Your task to perform on an android device: find which apps use the phone's location Image 0: 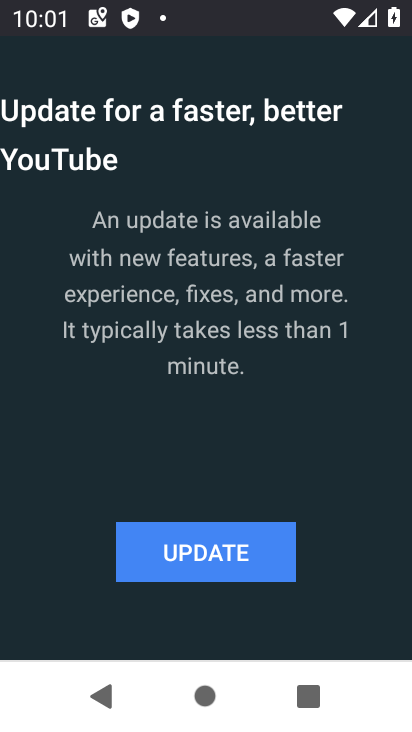
Step 0: press home button
Your task to perform on an android device: find which apps use the phone's location Image 1: 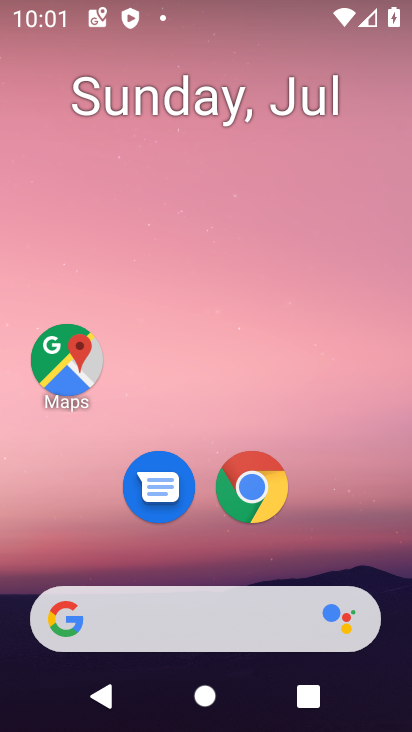
Step 1: drag from (180, 599) to (307, 19)
Your task to perform on an android device: find which apps use the phone's location Image 2: 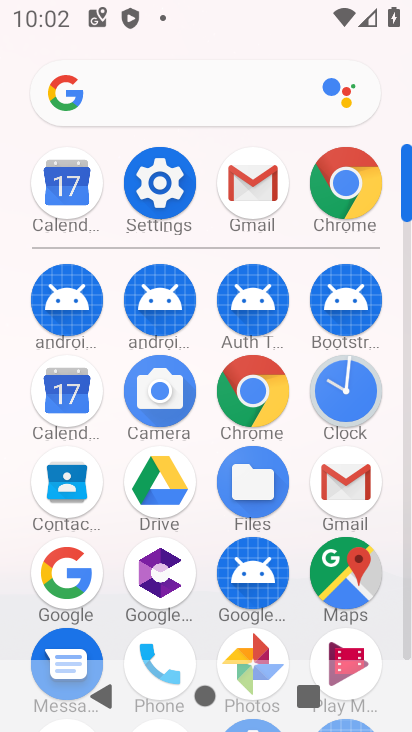
Step 2: click (160, 177)
Your task to perform on an android device: find which apps use the phone's location Image 3: 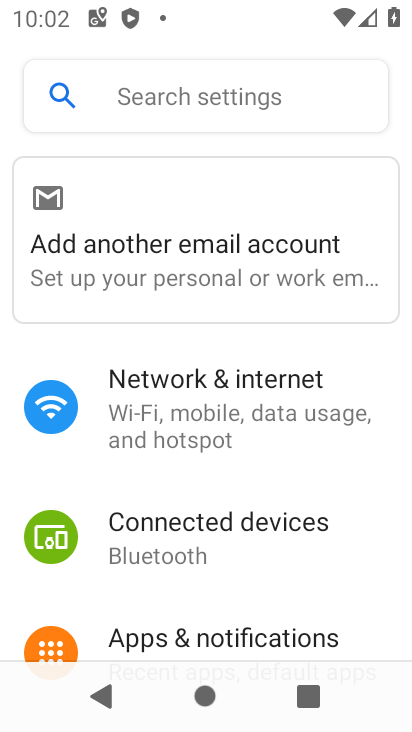
Step 3: drag from (180, 588) to (294, 165)
Your task to perform on an android device: find which apps use the phone's location Image 4: 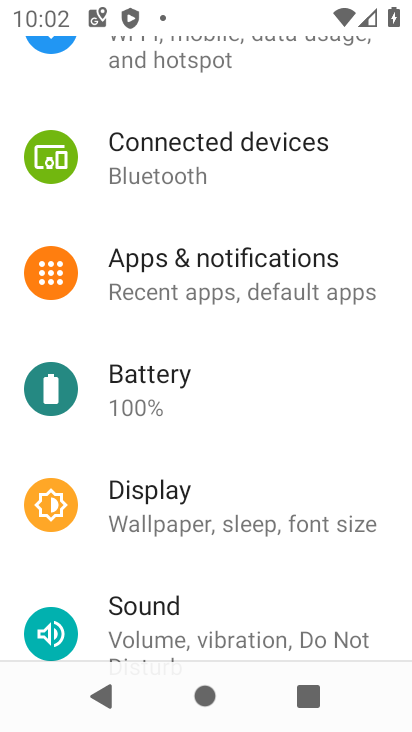
Step 4: drag from (214, 590) to (318, 227)
Your task to perform on an android device: find which apps use the phone's location Image 5: 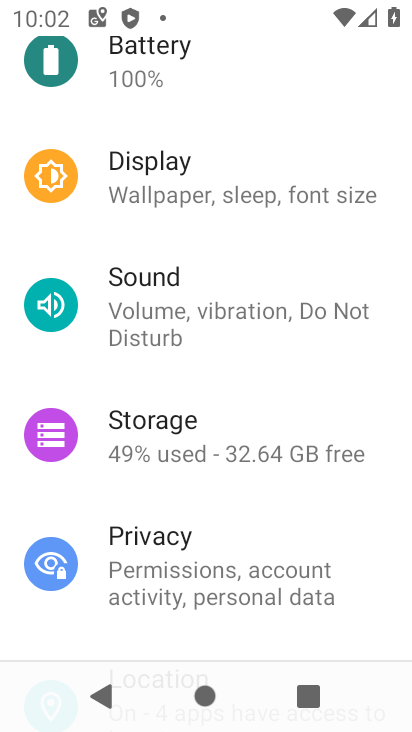
Step 5: drag from (165, 627) to (263, 197)
Your task to perform on an android device: find which apps use the phone's location Image 6: 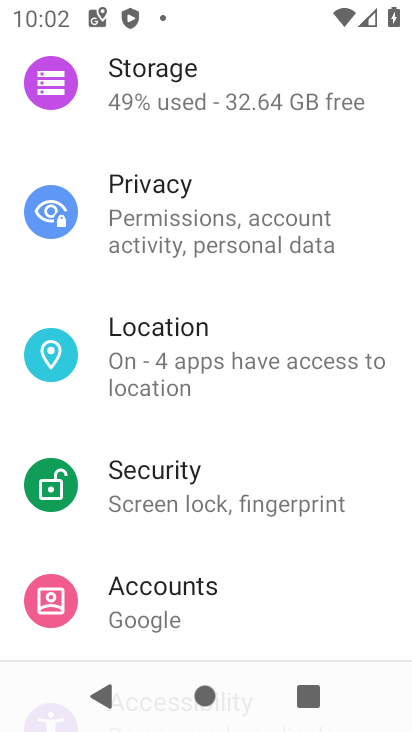
Step 6: click (164, 360)
Your task to perform on an android device: find which apps use the phone's location Image 7: 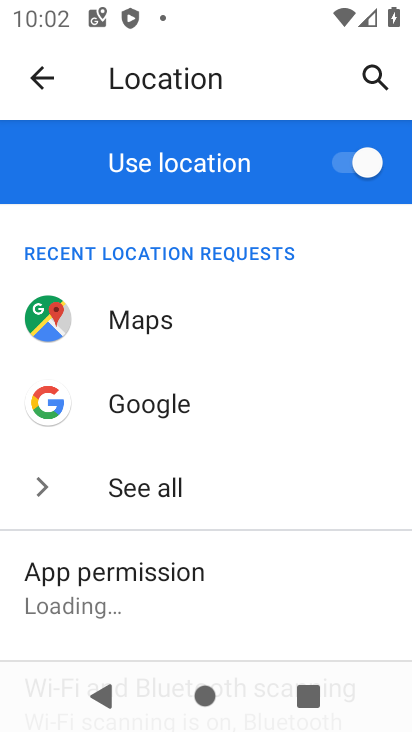
Step 7: click (97, 575)
Your task to perform on an android device: find which apps use the phone's location Image 8: 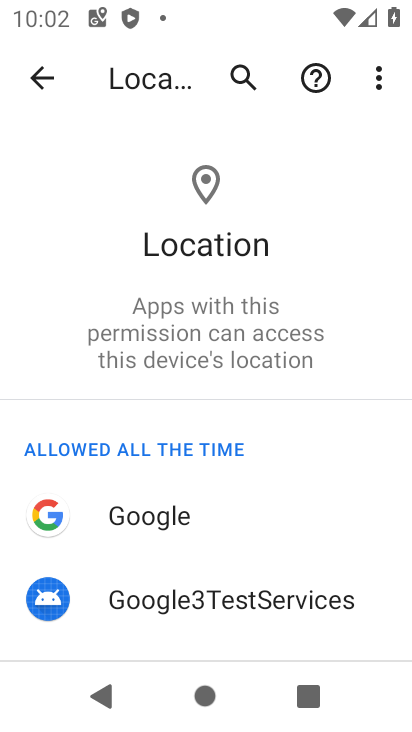
Step 8: task complete